Your task to perform on an android device: Open calendar and show me the second week of next month Image 0: 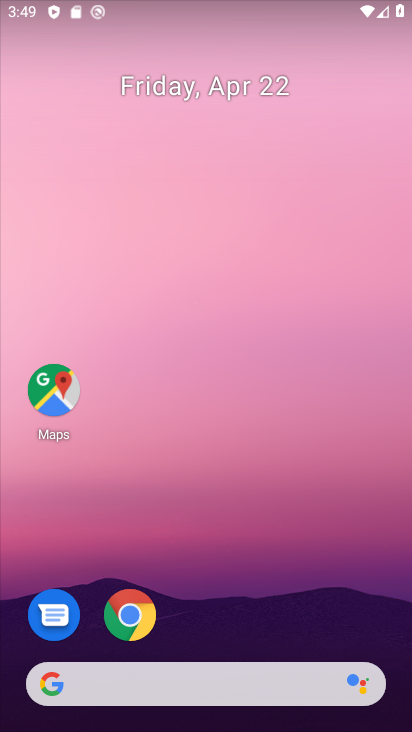
Step 0: click (293, 159)
Your task to perform on an android device: Open calendar and show me the second week of next month Image 1: 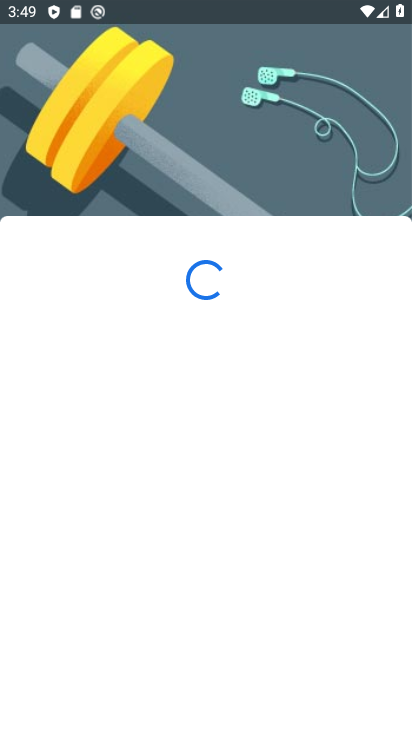
Step 1: press home button
Your task to perform on an android device: Open calendar and show me the second week of next month Image 2: 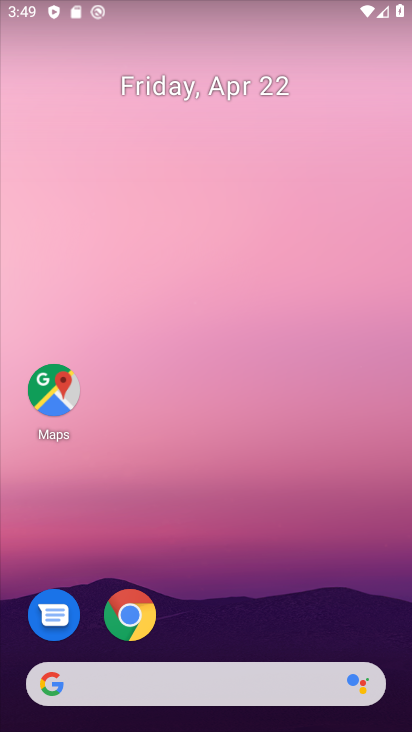
Step 2: drag from (301, 492) to (305, 86)
Your task to perform on an android device: Open calendar and show me the second week of next month Image 3: 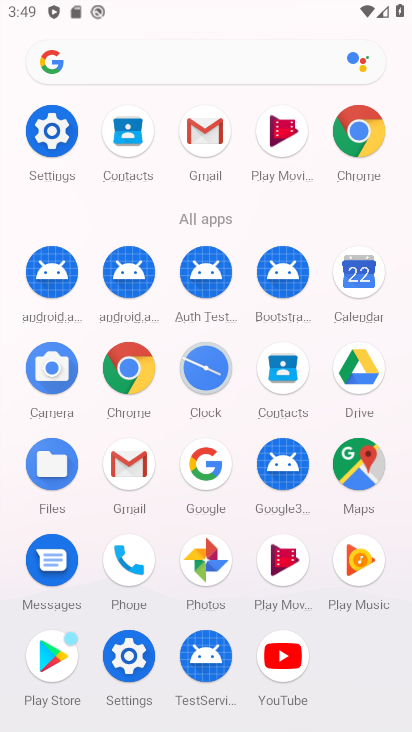
Step 3: click (345, 292)
Your task to perform on an android device: Open calendar and show me the second week of next month Image 4: 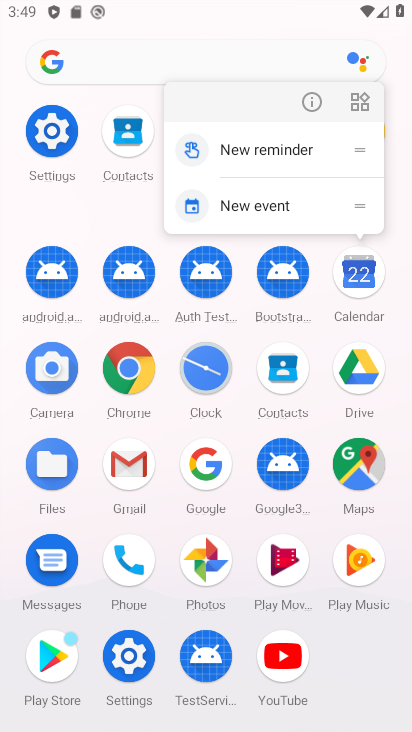
Step 4: click (358, 284)
Your task to perform on an android device: Open calendar and show me the second week of next month Image 5: 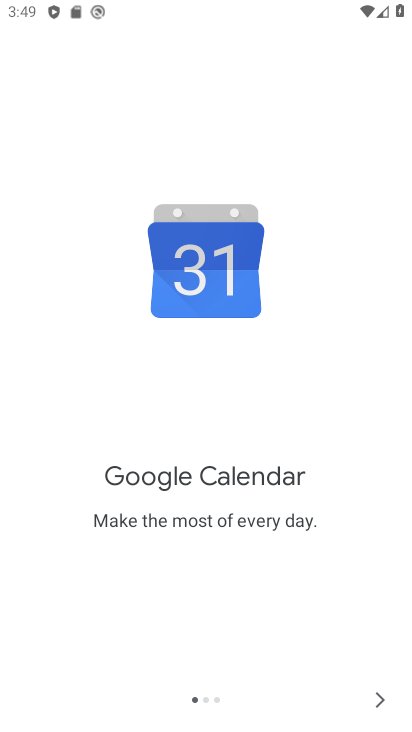
Step 5: click (374, 712)
Your task to perform on an android device: Open calendar and show me the second week of next month Image 6: 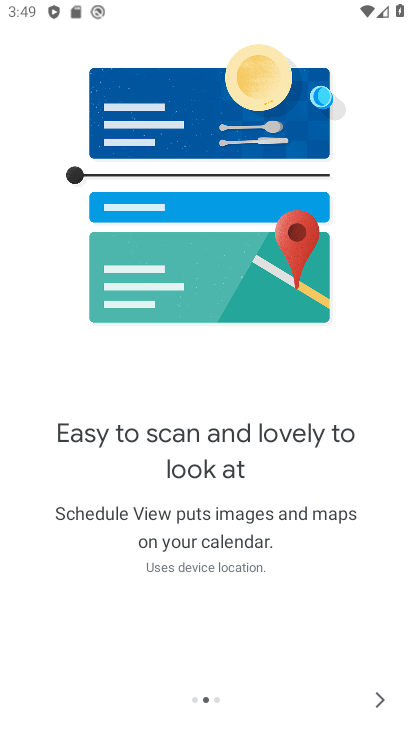
Step 6: click (374, 712)
Your task to perform on an android device: Open calendar and show me the second week of next month Image 7: 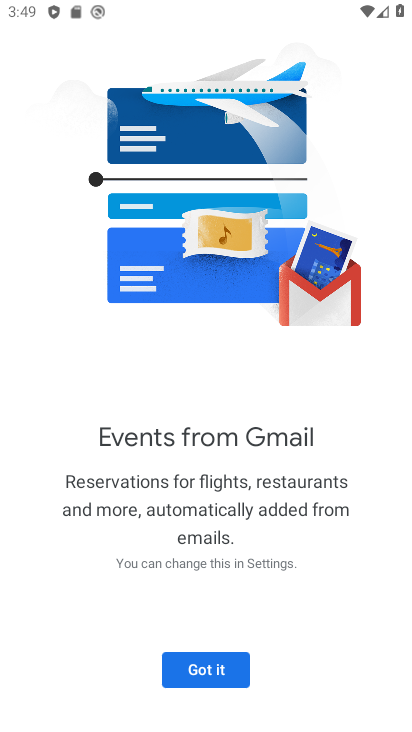
Step 7: click (215, 683)
Your task to perform on an android device: Open calendar and show me the second week of next month Image 8: 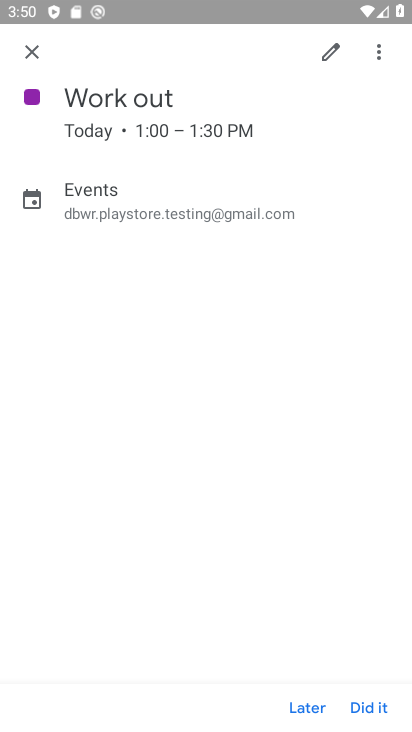
Step 8: click (29, 59)
Your task to perform on an android device: Open calendar and show me the second week of next month Image 9: 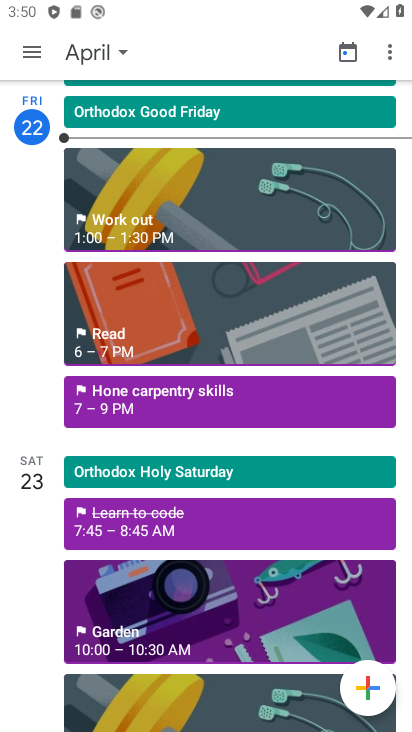
Step 9: click (97, 50)
Your task to perform on an android device: Open calendar and show me the second week of next month Image 10: 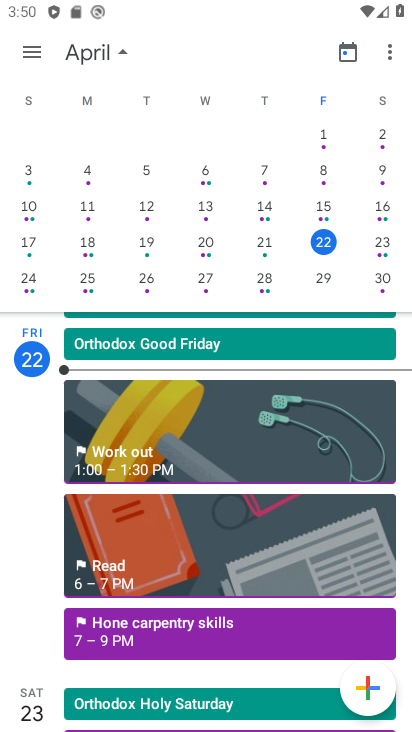
Step 10: drag from (337, 184) to (1, 286)
Your task to perform on an android device: Open calendar and show me the second week of next month Image 11: 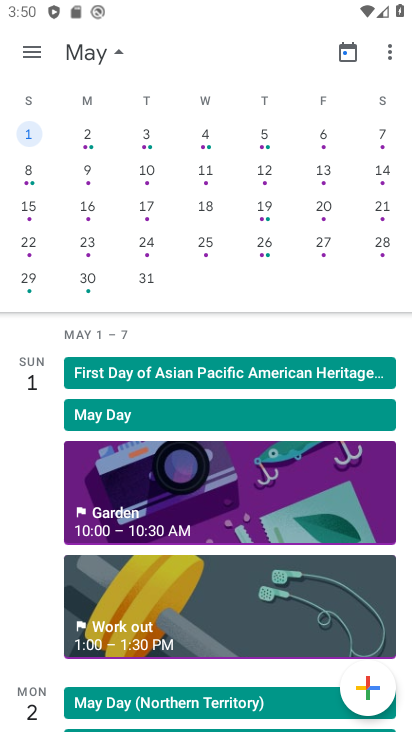
Step 11: click (29, 182)
Your task to perform on an android device: Open calendar and show me the second week of next month Image 12: 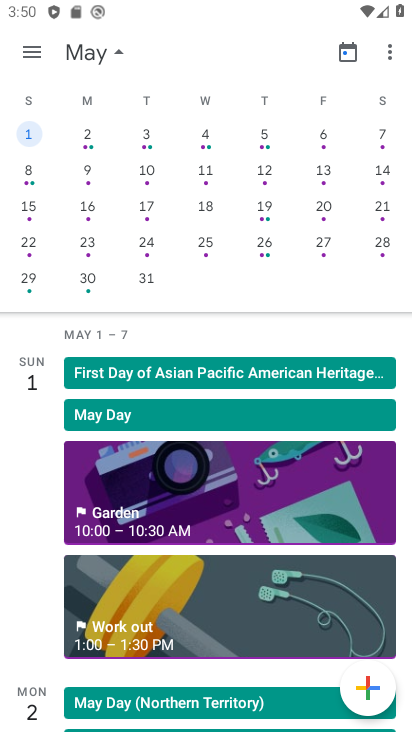
Step 12: click (88, 182)
Your task to perform on an android device: Open calendar and show me the second week of next month Image 13: 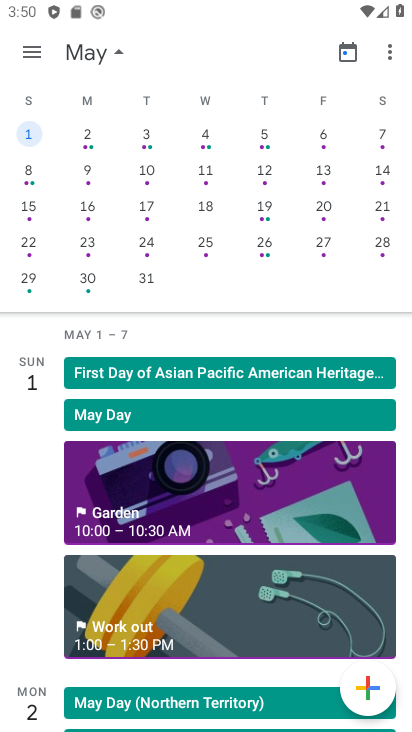
Step 13: click (154, 181)
Your task to perform on an android device: Open calendar and show me the second week of next month Image 14: 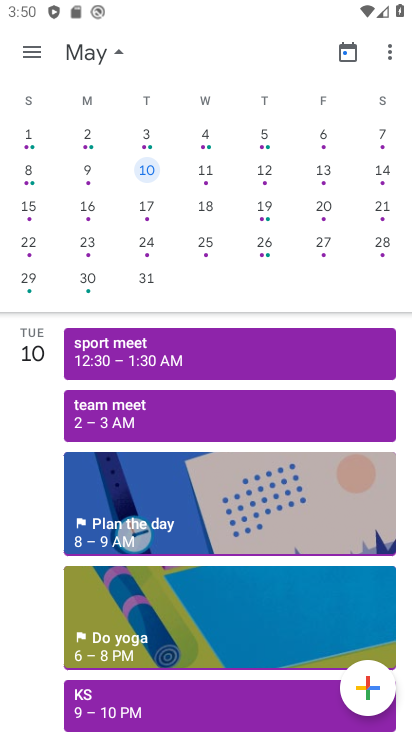
Step 14: click (211, 179)
Your task to perform on an android device: Open calendar and show me the second week of next month Image 15: 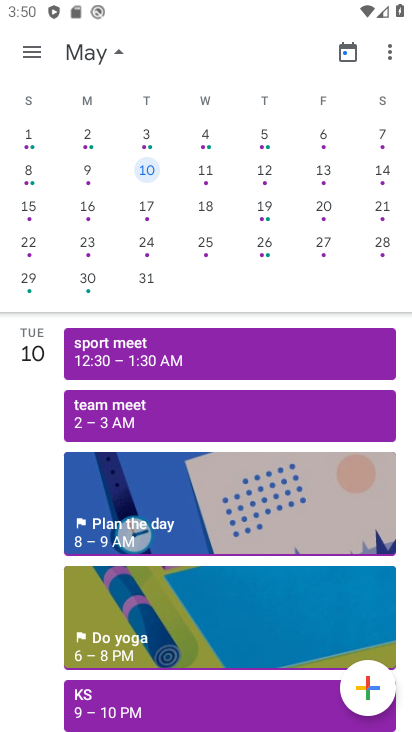
Step 15: click (274, 179)
Your task to perform on an android device: Open calendar and show me the second week of next month Image 16: 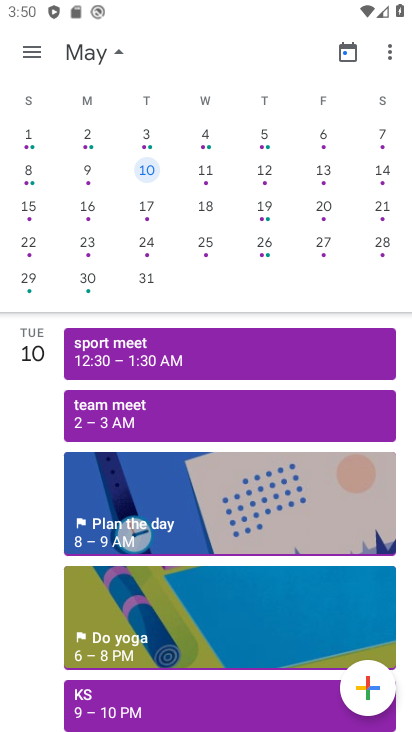
Step 16: click (312, 182)
Your task to perform on an android device: Open calendar and show me the second week of next month Image 17: 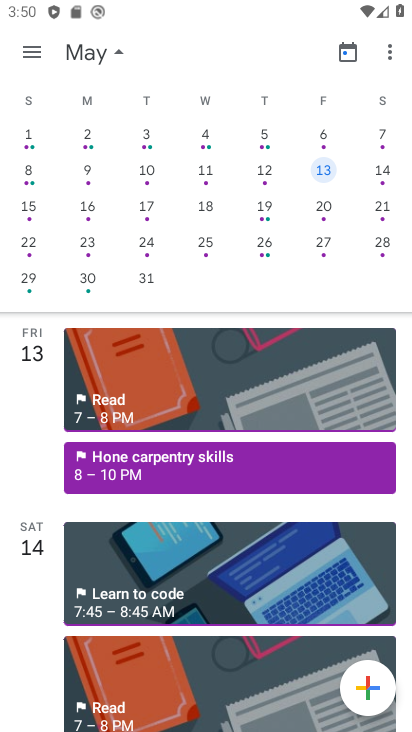
Step 17: click (391, 182)
Your task to perform on an android device: Open calendar and show me the second week of next month Image 18: 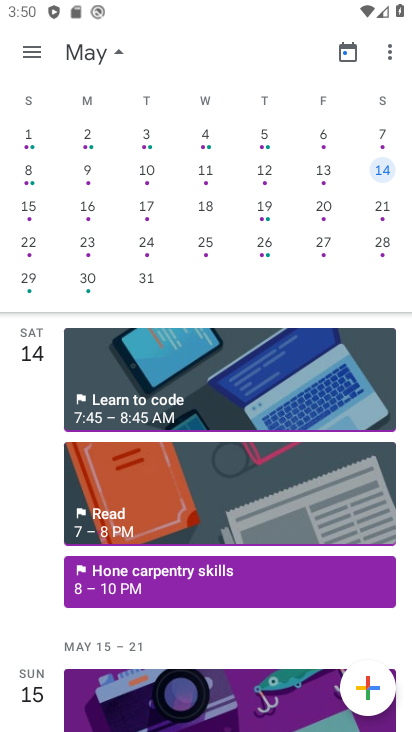
Step 18: task complete